Your task to perform on an android device: turn on the 24-hour format for clock Image 0: 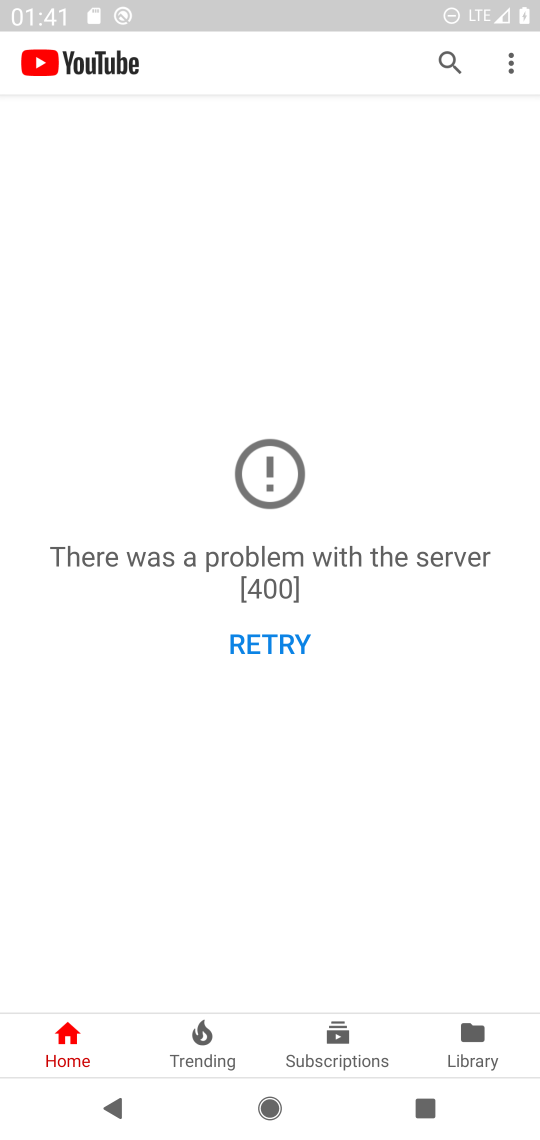
Step 0: press home button
Your task to perform on an android device: turn on the 24-hour format for clock Image 1: 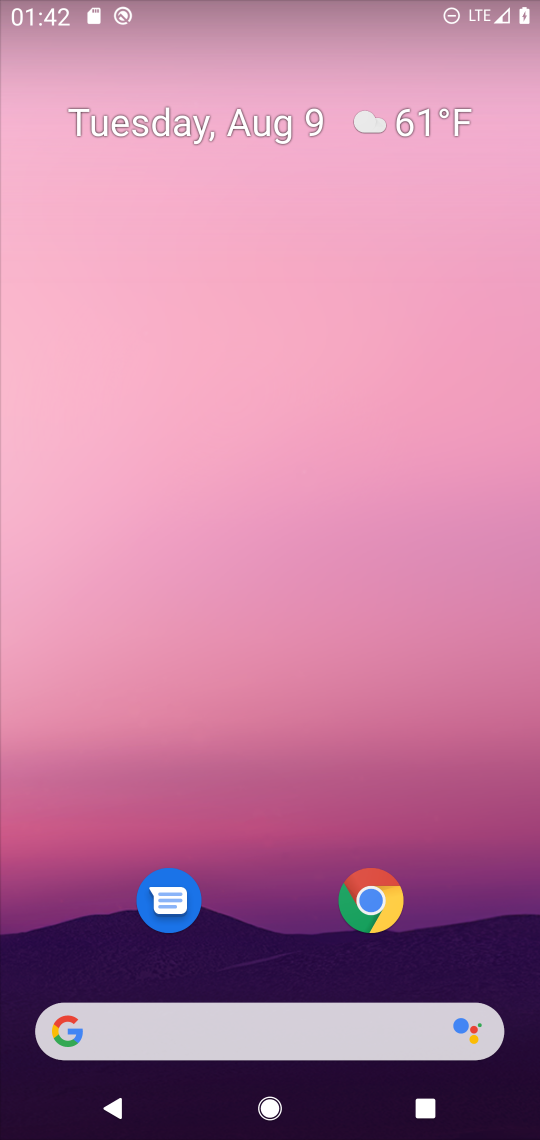
Step 1: drag from (282, 935) to (336, 117)
Your task to perform on an android device: turn on the 24-hour format for clock Image 2: 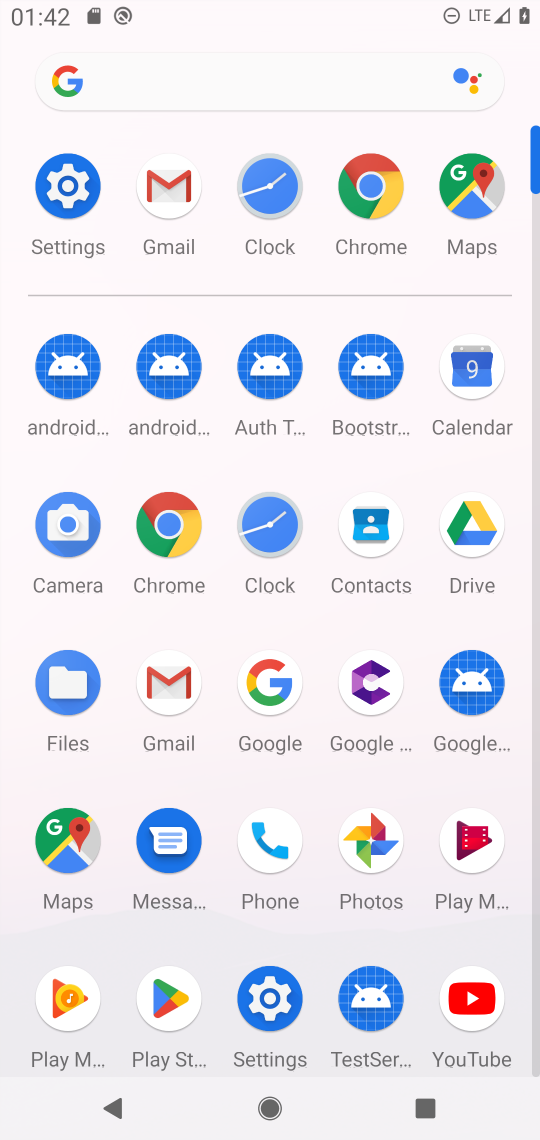
Step 2: click (255, 536)
Your task to perform on an android device: turn on the 24-hour format for clock Image 3: 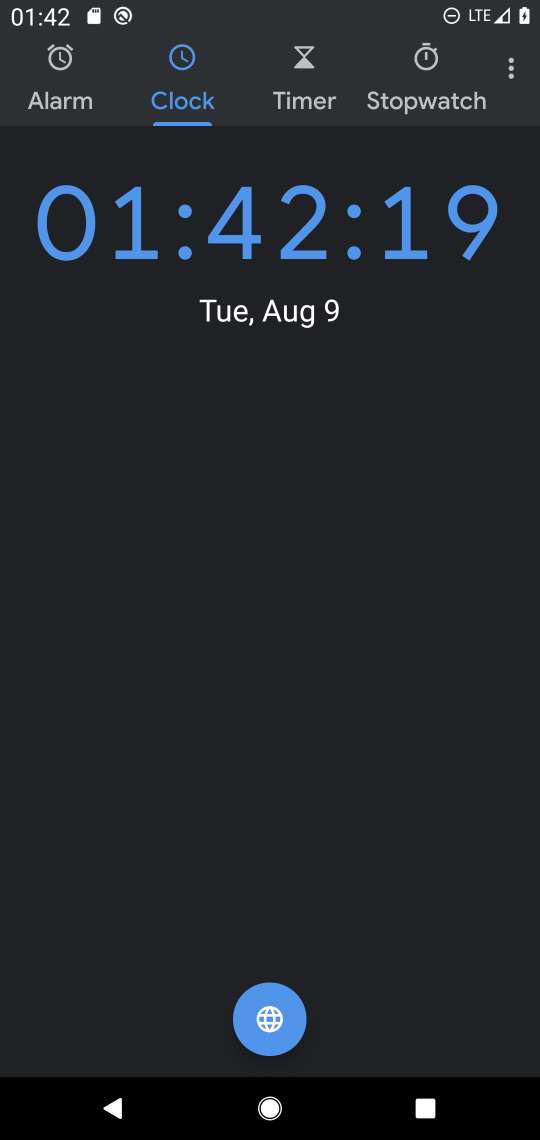
Step 3: click (512, 80)
Your task to perform on an android device: turn on the 24-hour format for clock Image 4: 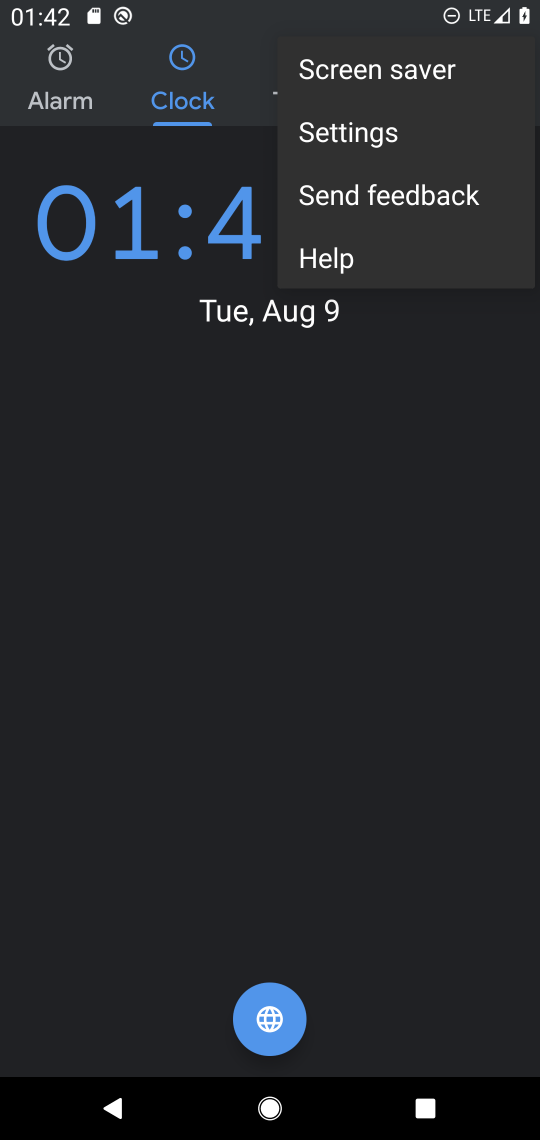
Step 4: click (381, 132)
Your task to perform on an android device: turn on the 24-hour format for clock Image 5: 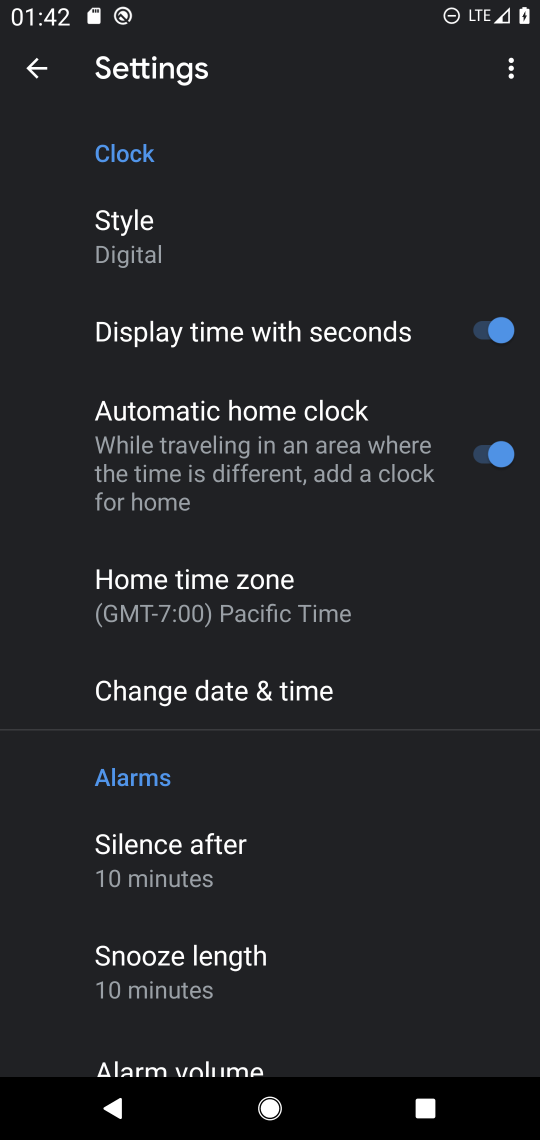
Step 5: drag from (411, 704) to (437, 519)
Your task to perform on an android device: turn on the 24-hour format for clock Image 6: 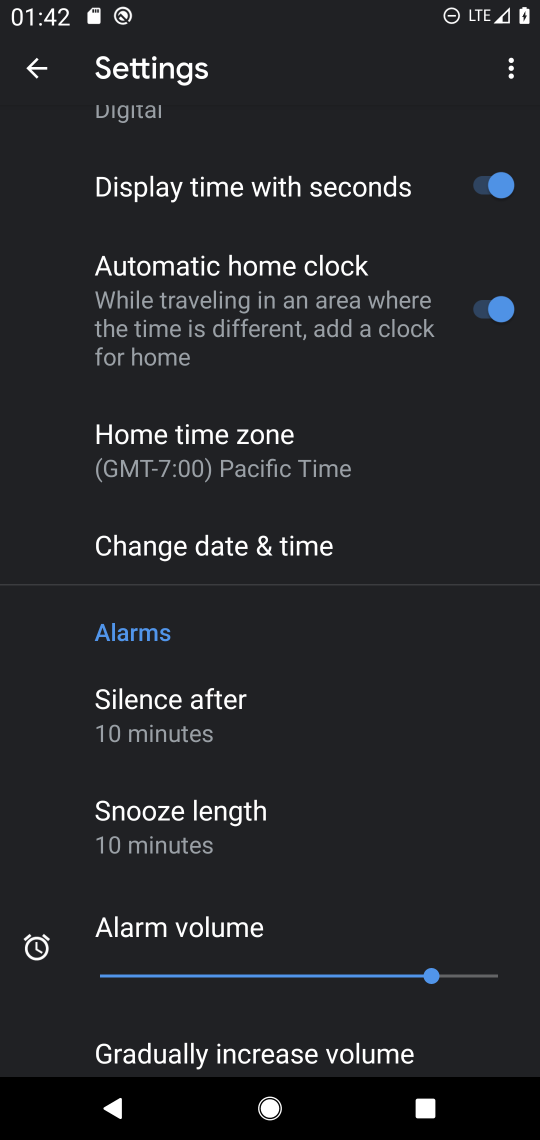
Step 6: drag from (408, 709) to (421, 492)
Your task to perform on an android device: turn on the 24-hour format for clock Image 7: 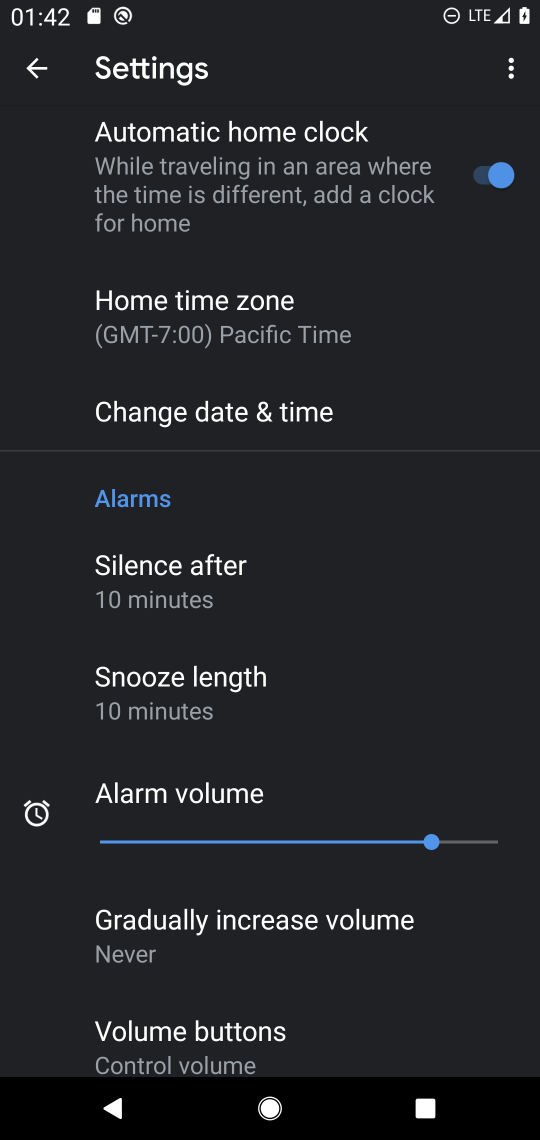
Step 7: drag from (371, 653) to (397, 389)
Your task to perform on an android device: turn on the 24-hour format for clock Image 8: 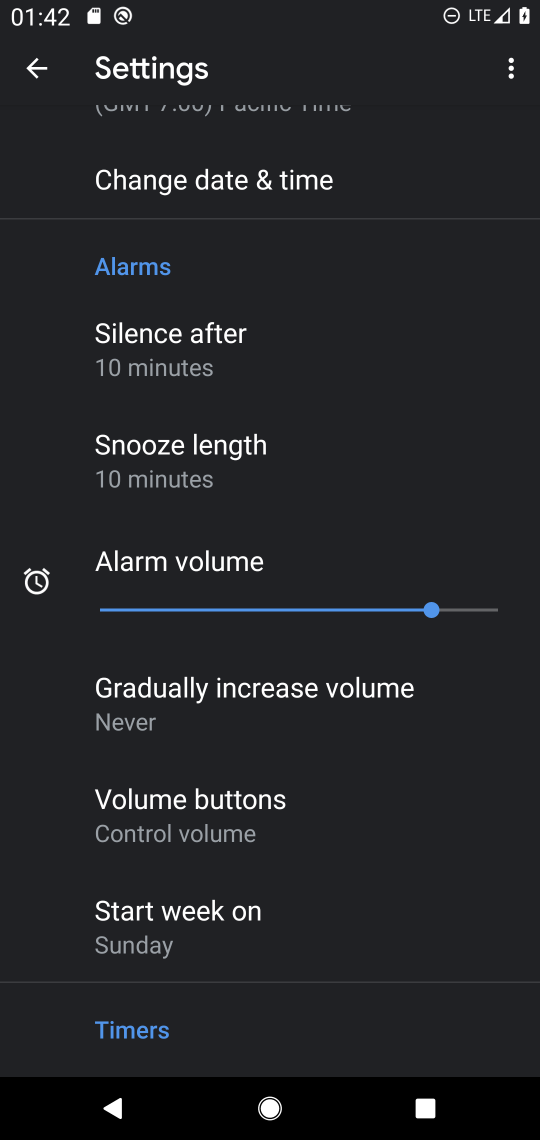
Step 8: click (389, 202)
Your task to perform on an android device: turn on the 24-hour format for clock Image 9: 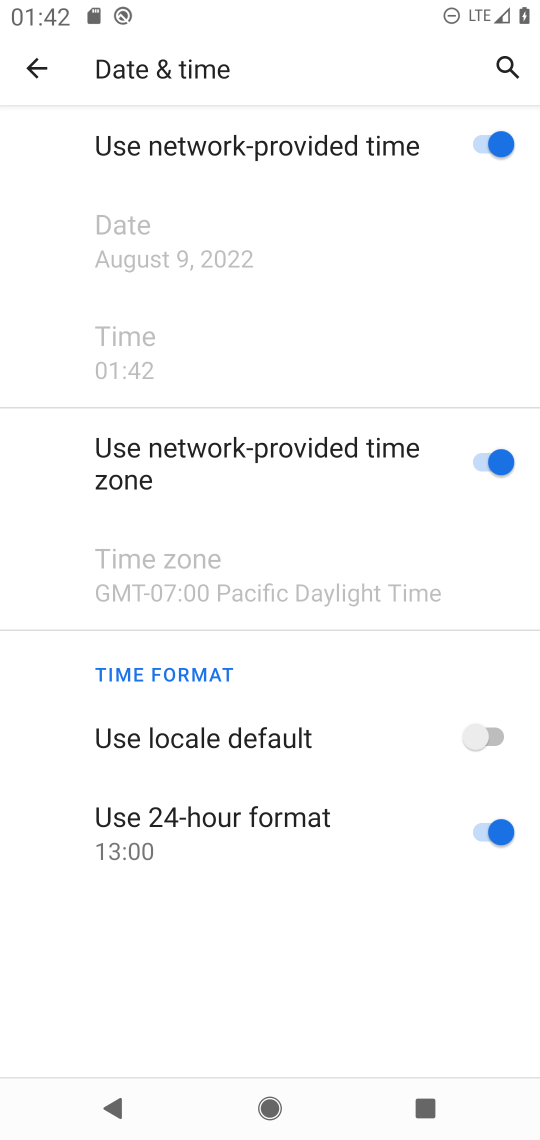
Step 9: task complete